Your task to perform on an android device: move an email to a new category in the gmail app Image 0: 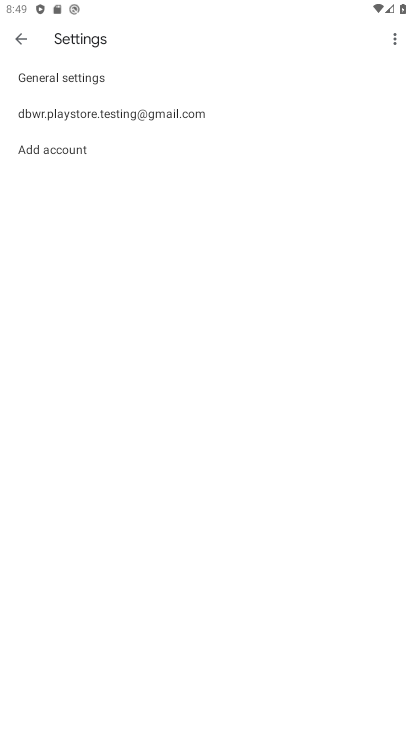
Step 0: press back button
Your task to perform on an android device: move an email to a new category in the gmail app Image 1: 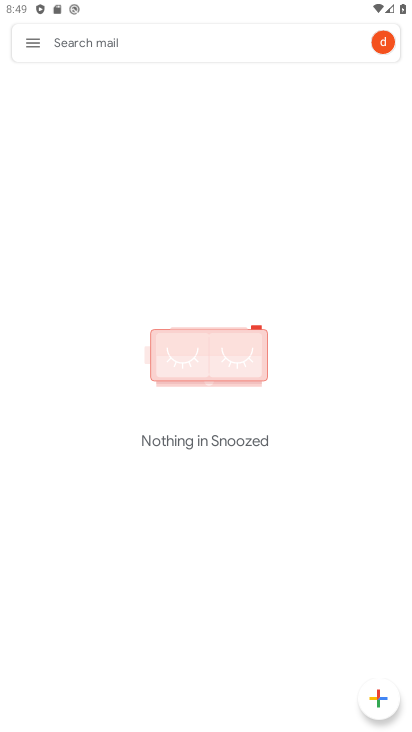
Step 1: press back button
Your task to perform on an android device: move an email to a new category in the gmail app Image 2: 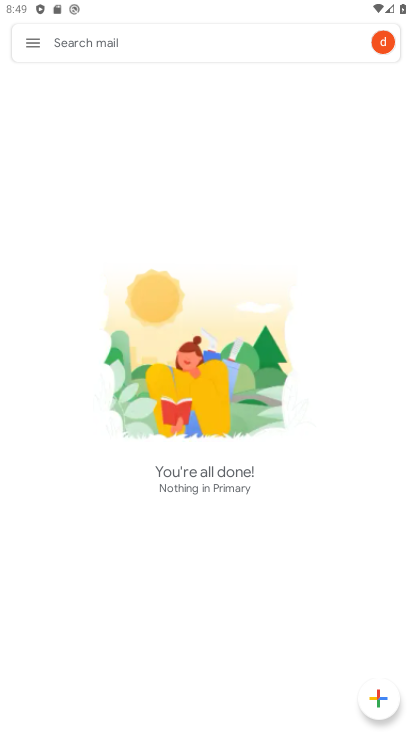
Step 2: click (37, 34)
Your task to perform on an android device: move an email to a new category in the gmail app Image 3: 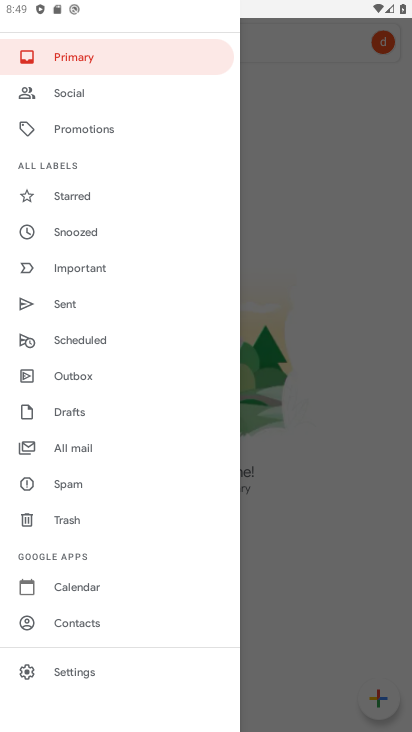
Step 3: click (64, 446)
Your task to perform on an android device: move an email to a new category in the gmail app Image 4: 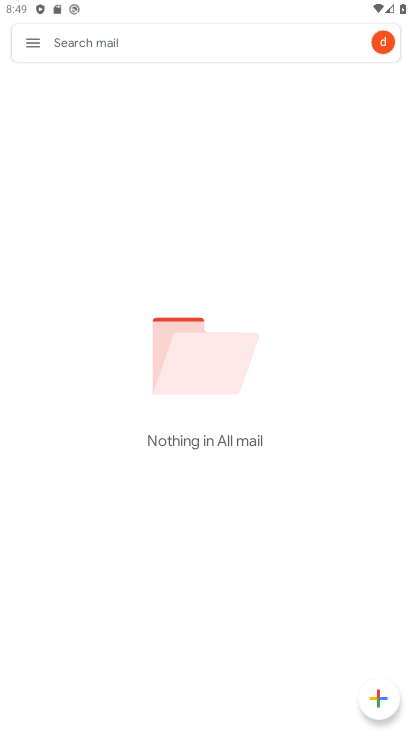
Step 4: task complete